Your task to perform on an android device: Go to sound settings Image 0: 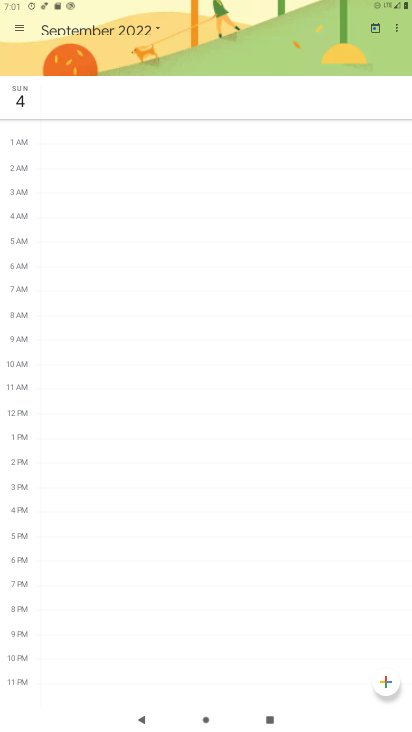
Step 0: press home button
Your task to perform on an android device: Go to sound settings Image 1: 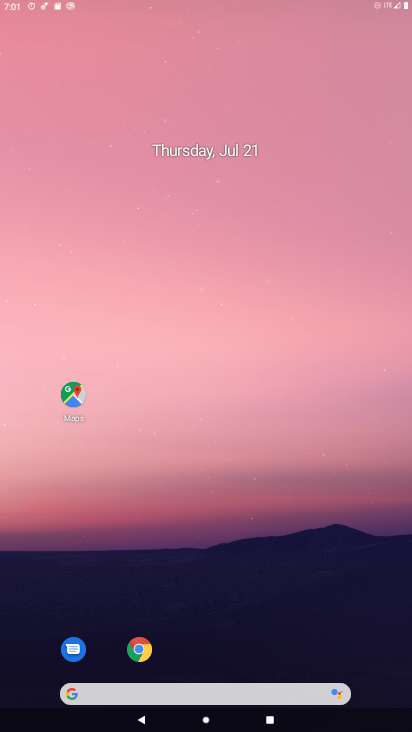
Step 1: drag from (365, 665) to (229, 49)
Your task to perform on an android device: Go to sound settings Image 2: 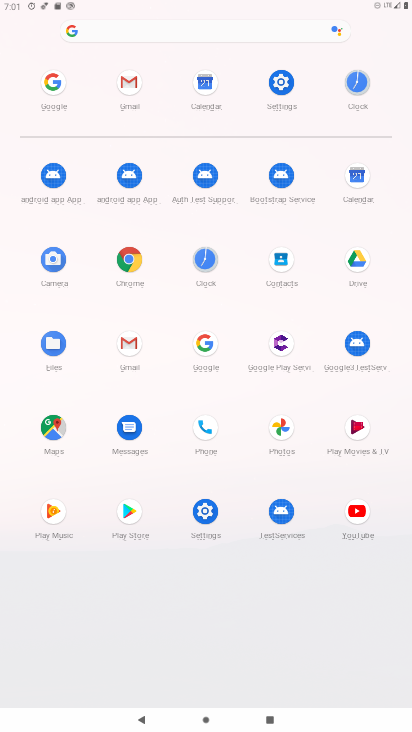
Step 2: click (202, 511)
Your task to perform on an android device: Go to sound settings Image 3: 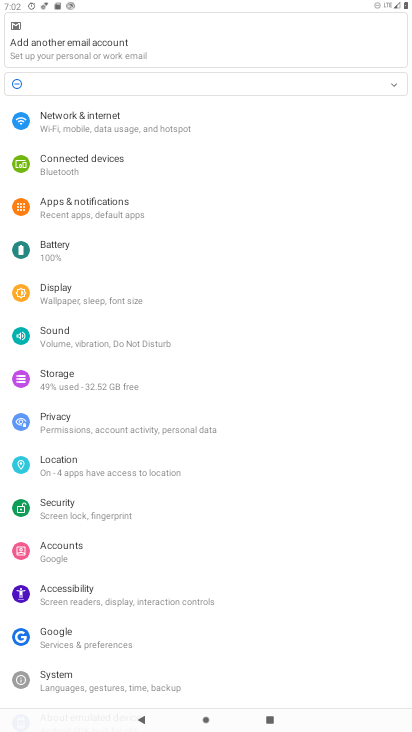
Step 3: click (65, 332)
Your task to perform on an android device: Go to sound settings Image 4: 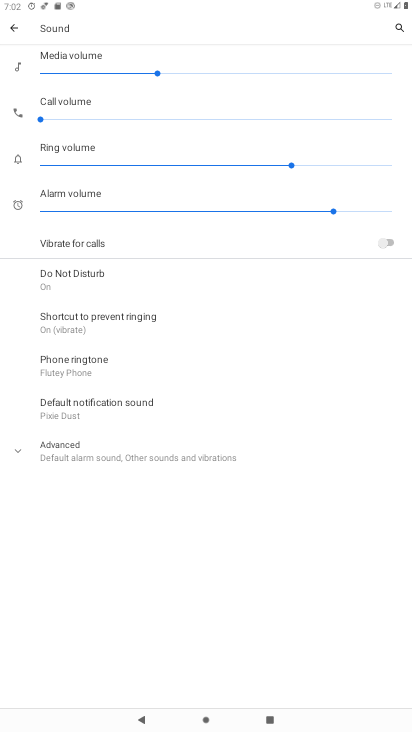
Step 4: task complete